Your task to perform on an android device: What's on the menu at Chipotle? Image 0: 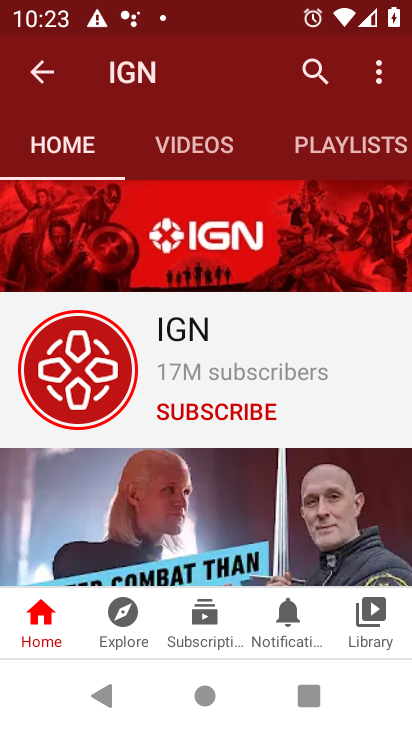
Step 0: press home button
Your task to perform on an android device: What's on the menu at Chipotle? Image 1: 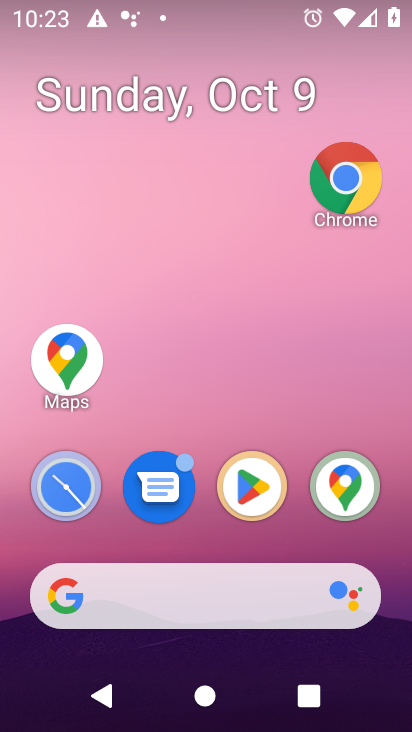
Step 1: drag from (242, 652) to (280, 224)
Your task to perform on an android device: What's on the menu at Chipotle? Image 2: 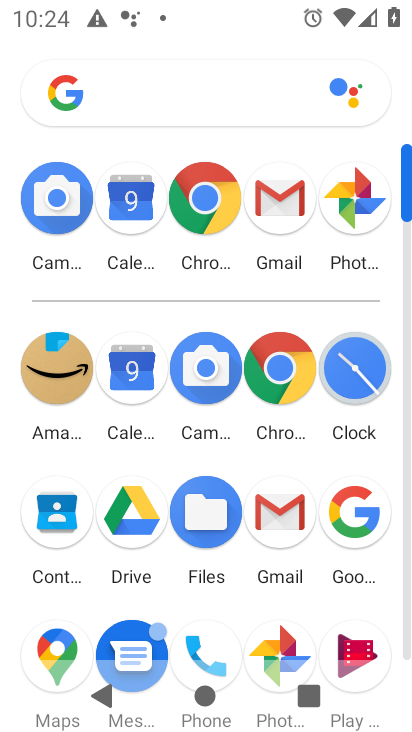
Step 2: drag from (259, 418) to (372, 3)
Your task to perform on an android device: What's on the menu at Chipotle? Image 3: 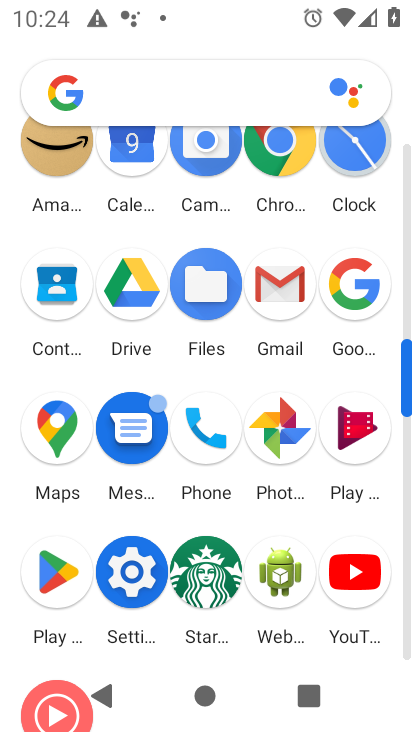
Step 3: click (360, 295)
Your task to perform on an android device: What's on the menu at Chipotle? Image 4: 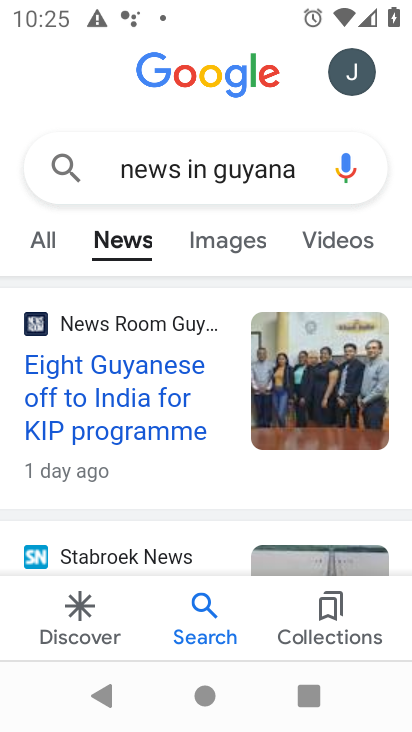
Step 4: click (306, 180)
Your task to perform on an android device: What's on the menu at Chipotle? Image 5: 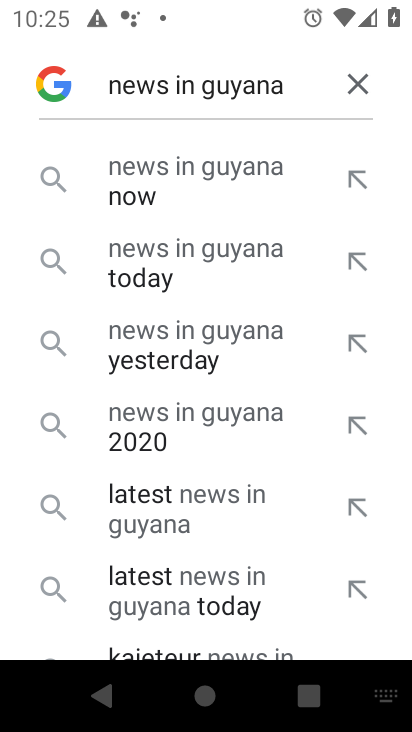
Step 5: click (372, 89)
Your task to perform on an android device: What's on the menu at Chipotle? Image 6: 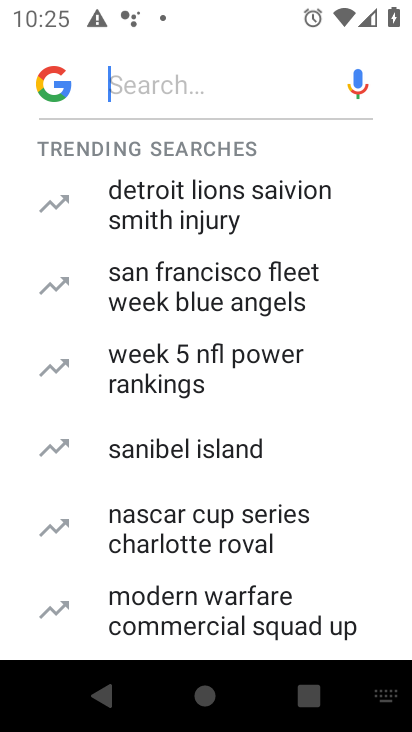
Step 6: type "menu at Chipotle"
Your task to perform on an android device: What's on the menu at Chipotle? Image 7: 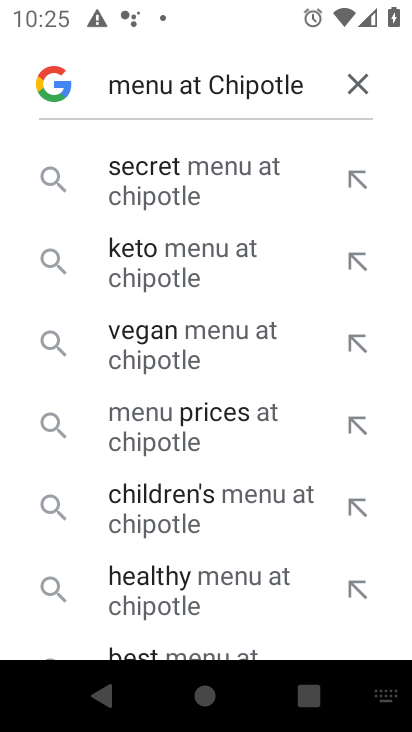
Step 7: click (211, 195)
Your task to perform on an android device: What's on the menu at Chipotle? Image 8: 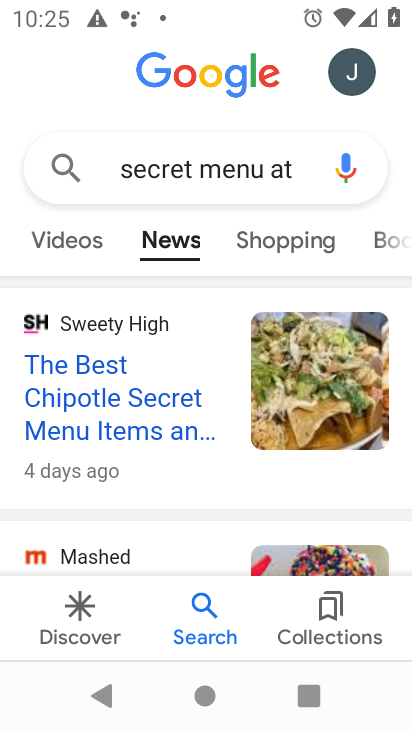
Step 8: drag from (52, 241) to (408, 290)
Your task to perform on an android device: What's on the menu at Chipotle? Image 9: 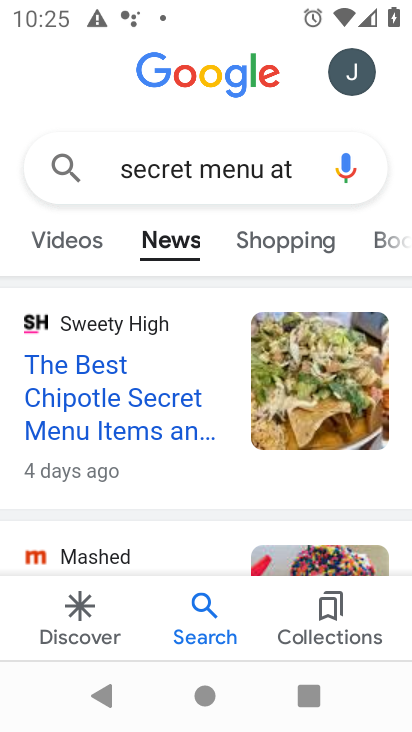
Step 9: drag from (167, 239) to (409, 240)
Your task to perform on an android device: What's on the menu at Chipotle? Image 10: 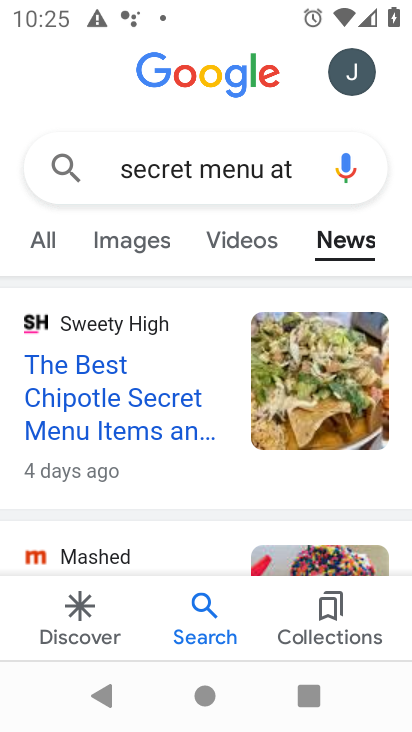
Step 10: click (45, 235)
Your task to perform on an android device: What's on the menu at Chipotle? Image 11: 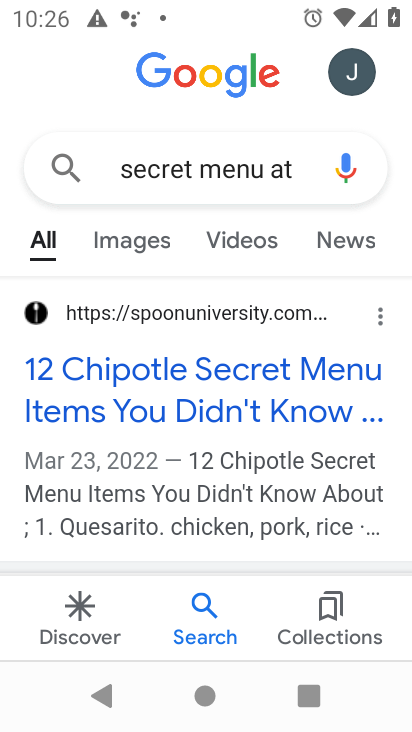
Step 11: task complete